Your task to perform on an android device: all mails in gmail Image 0: 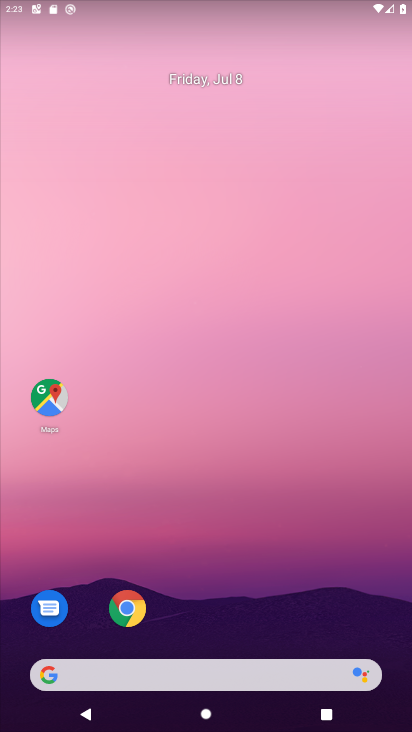
Step 0: drag from (219, 564) to (216, 351)
Your task to perform on an android device: all mails in gmail Image 1: 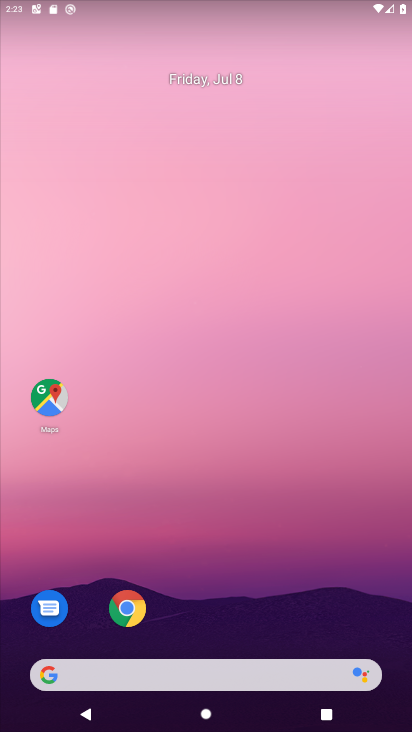
Step 1: drag from (236, 585) to (219, 183)
Your task to perform on an android device: all mails in gmail Image 2: 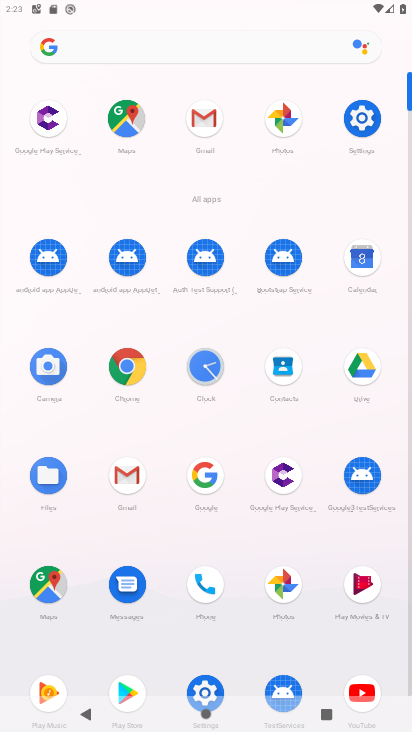
Step 2: click (205, 107)
Your task to perform on an android device: all mails in gmail Image 3: 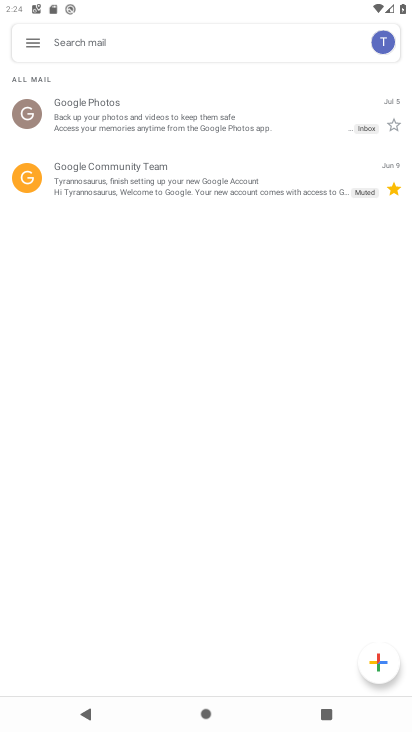
Step 3: click (21, 30)
Your task to perform on an android device: all mails in gmail Image 4: 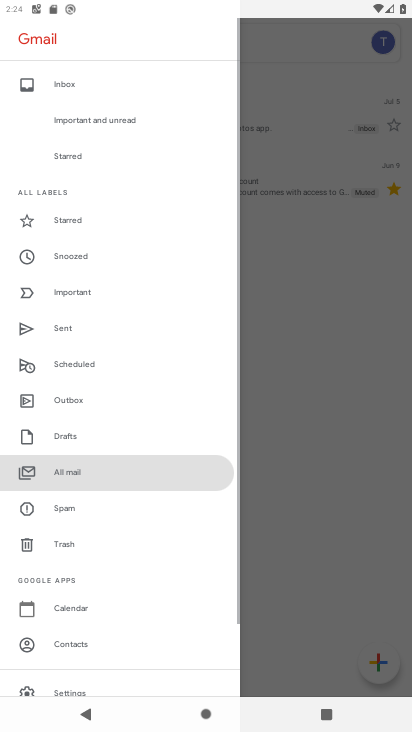
Step 4: click (77, 461)
Your task to perform on an android device: all mails in gmail Image 5: 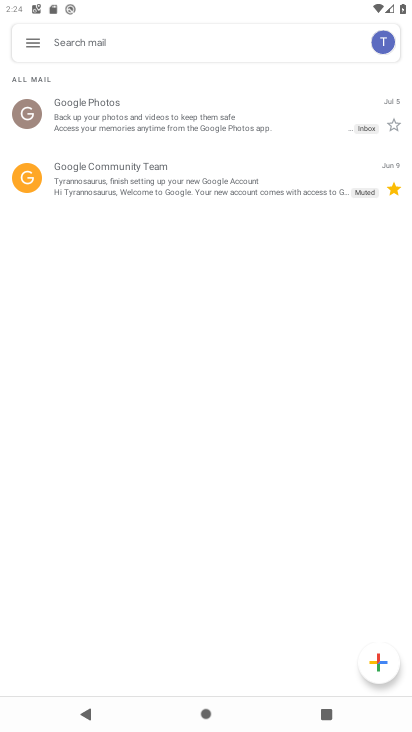
Step 5: task complete